Your task to perform on an android device: refresh tabs in the chrome app Image 0: 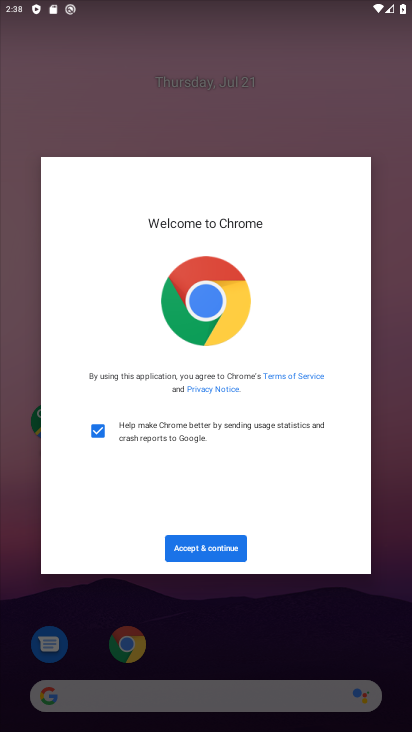
Step 0: click (193, 545)
Your task to perform on an android device: refresh tabs in the chrome app Image 1: 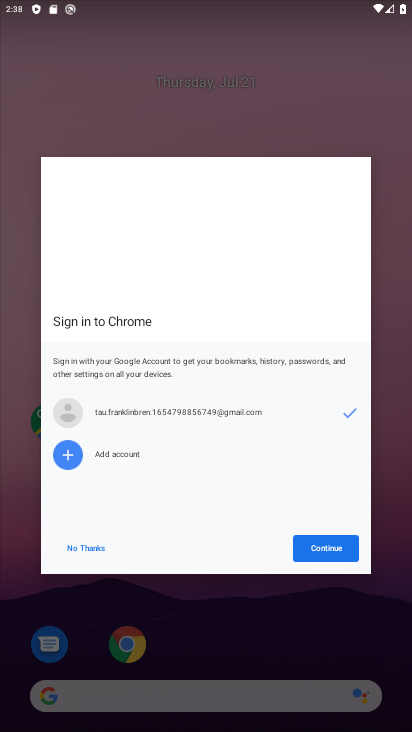
Step 1: click (325, 545)
Your task to perform on an android device: refresh tabs in the chrome app Image 2: 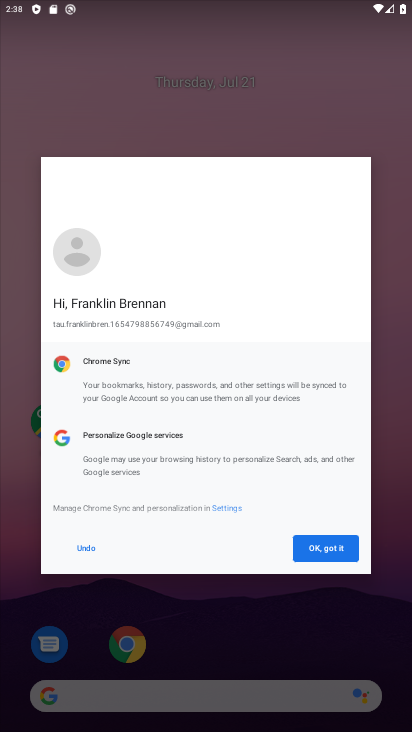
Step 2: click (342, 545)
Your task to perform on an android device: refresh tabs in the chrome app Image 3: 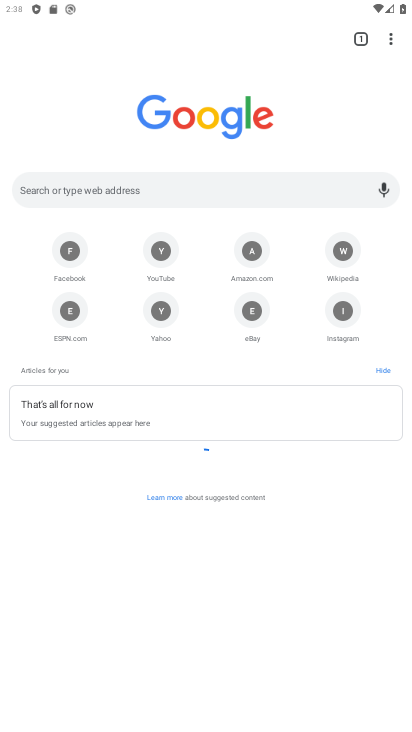
Step 3: click (396, 37)
Your task to perform on an android device: refresh tabs in the chrome app Image 4: 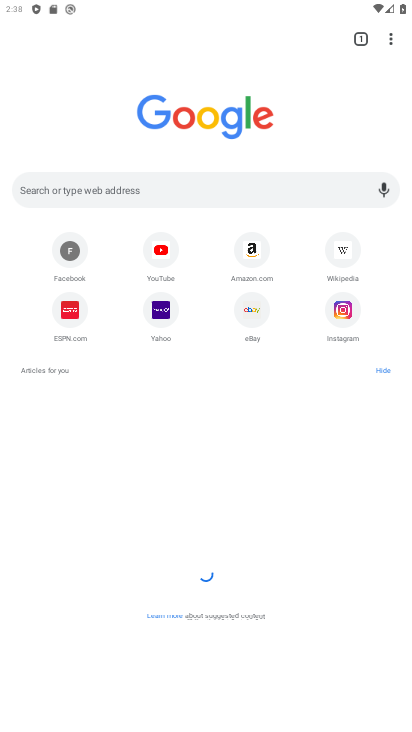
Step 4: click (388, 26)
Your task to perform on an android device: refresh tabs in the chrome app Image 5: 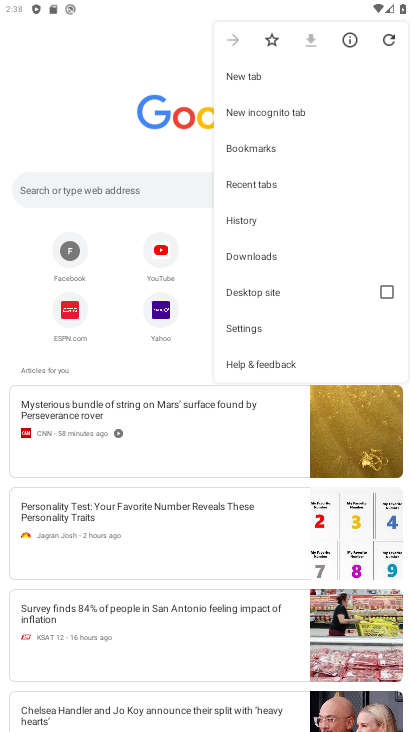
Step 5: click (393, 47)
Your task to perform on an android device: refresh tabs in the chrome app Image 6: 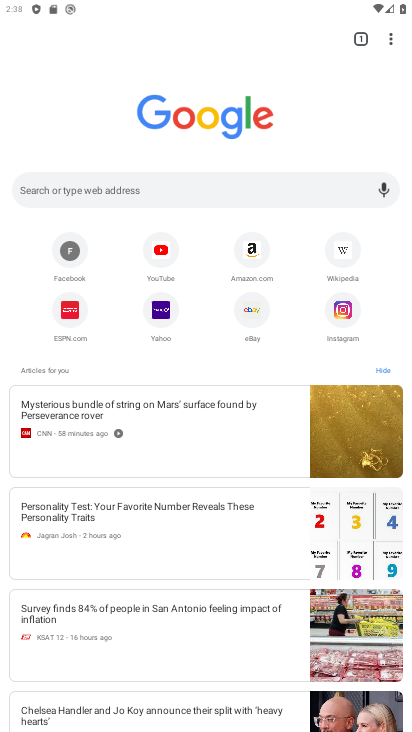
Step 6: task complete